Your task to perform on an android device: open app "DuckDuckGo Privacy Browser" (install if not already installed) and enter user name: "cleaving@outlook.com" and password: "freighters" Image 0: 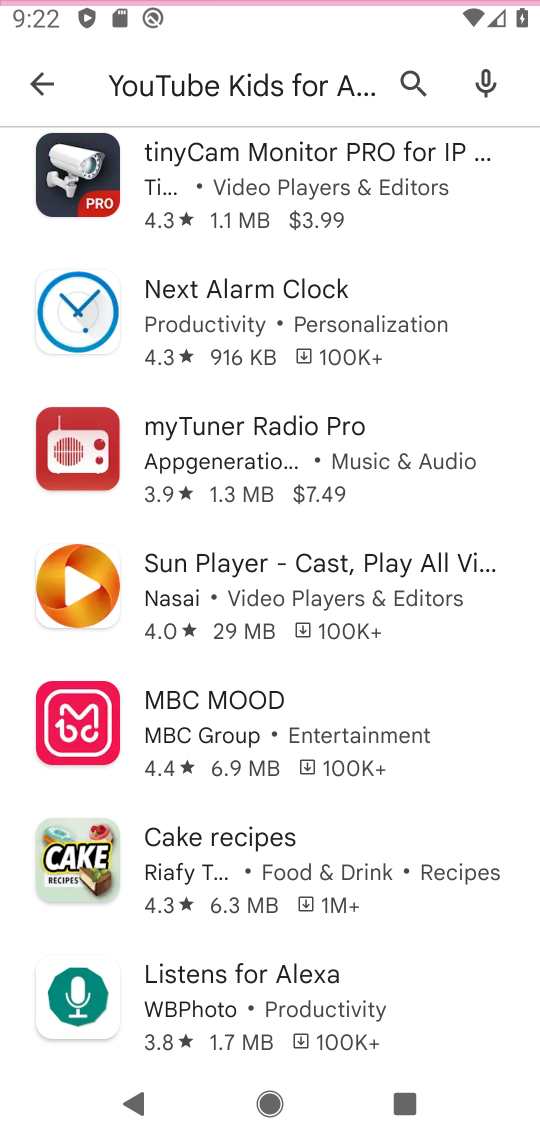
Step 0: press home button
Your task to perform on an android device: open app "DuckDuckGo Privacy Browser" (install if not already installed) and enter user name: "cleaving@outlook.com" and password: "freighters" Image 1: 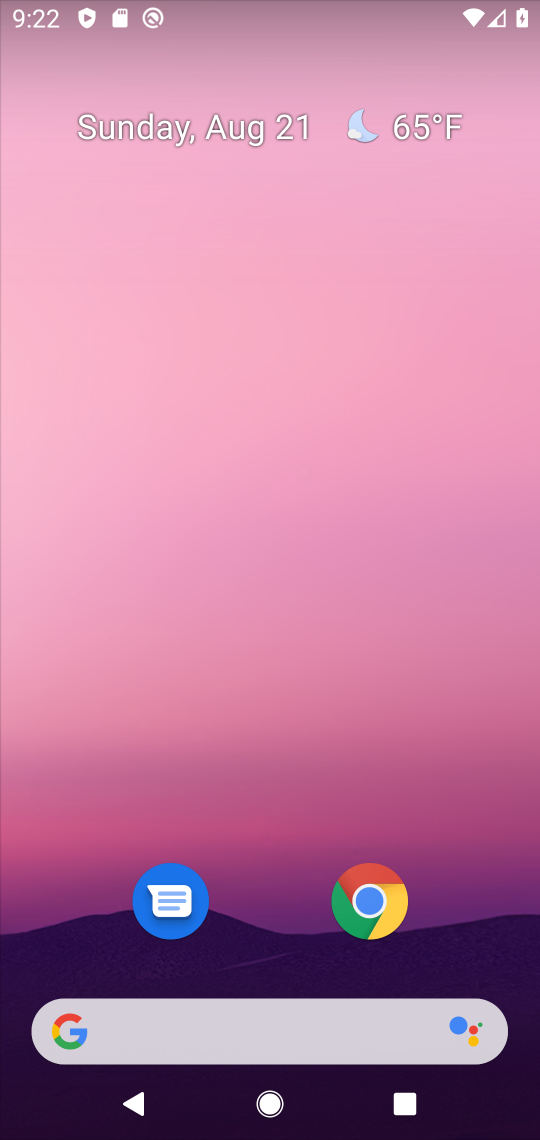
Step 1: drag from (454, 926) to (495, 106)
Your task to perform on an android device: open app "DuckDuckGo Privacy Browser" (install if not already installed) and enter user name: "cleaving@outlook.com" and password: "freighters" Image 2: 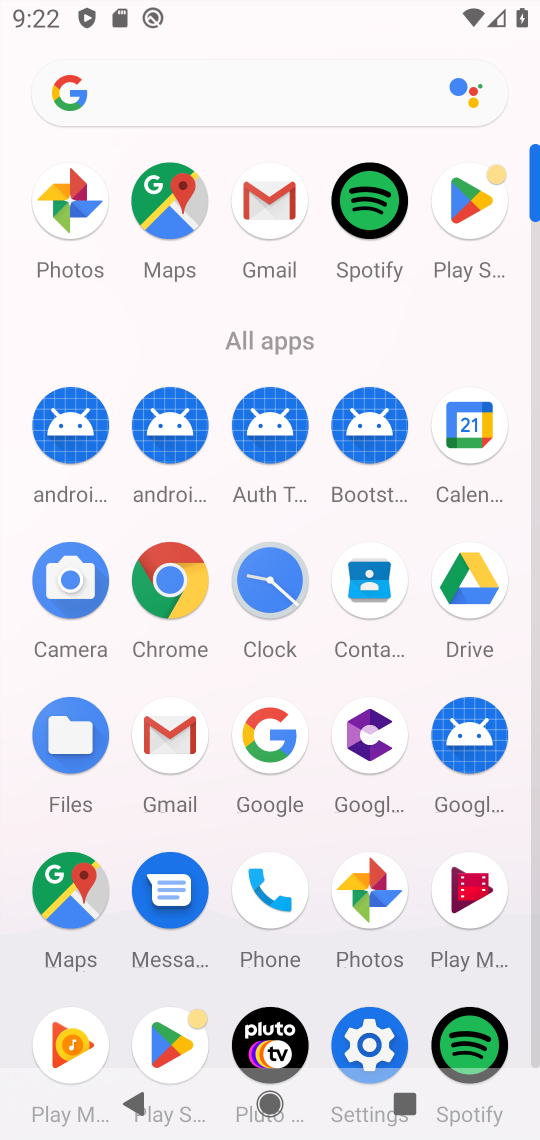
Step 2: click (478, 192)
Your task to perform on an android device: open app "DuckDuckGo Privacy Browser" (install if not already installed) and enter user name: "cleaving@outlook.com" and password: "freighters" Image 3: 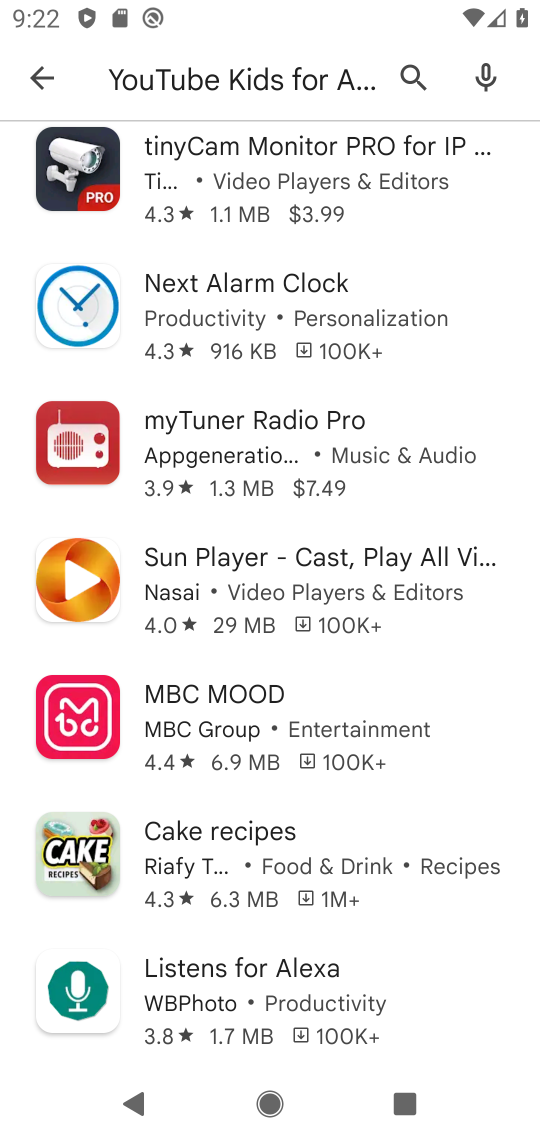
Step 3: press back button
Your task to perform on an android device: open app "DuckDuckGo Privacy Browser" (install if not already installed) and enter user name: "cleaving@outlook.com" and password: "freighters" Image 4: 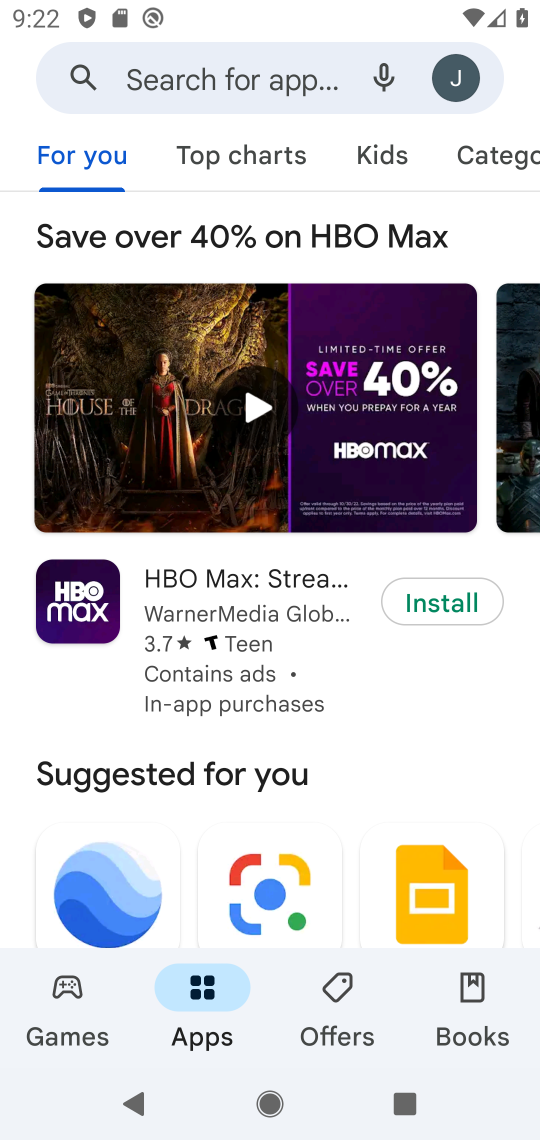
Step 4: click (197, 95)
Your task to perform on an android device: open app "DuckDuckGo Privacy Browser" (install if not already installed) and enter user name: "cleaving@outlook.com" and password: "freighters" Image 5: 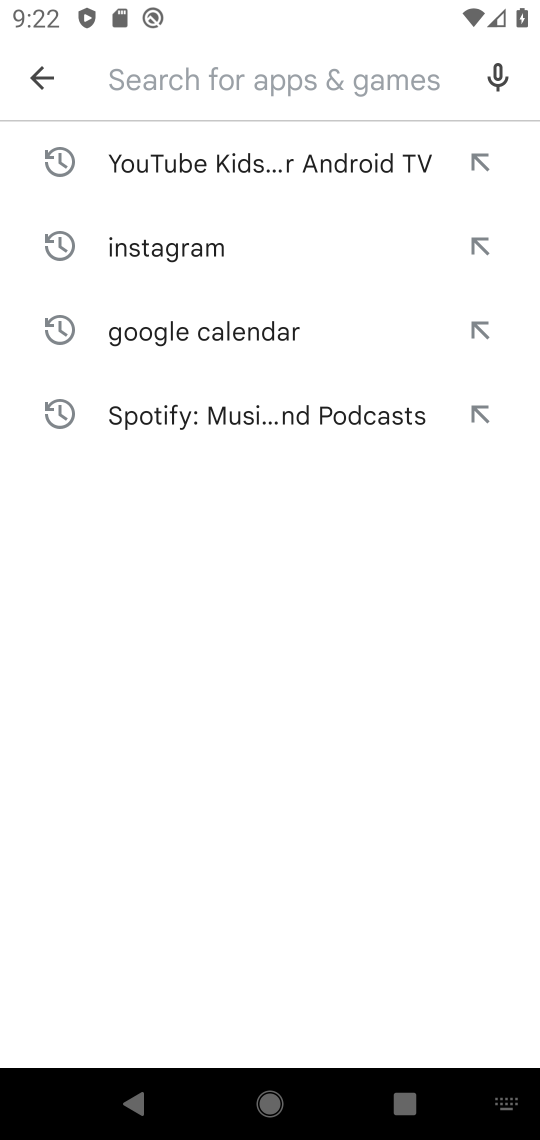
Step 5: type "DuckDuckGo Privacy Browser"
Your task to perform on an android device: open app "DuckDuckGo Privacy Browser" (install if not already installed) and enter user name: "cleaving@outlook.com" and password: "freighters" Image 6: 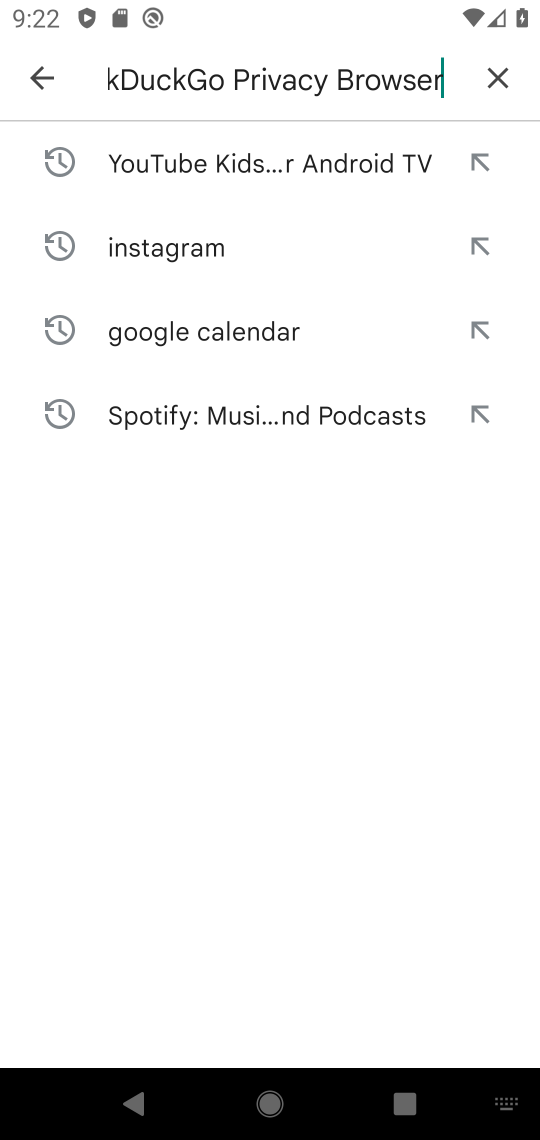
Step 6: press enter
Your task to perform on an android device: open app "DuckDuckGo Privacy Browser" (install if not already installed) and enter user name: "cleaving@outlook.com" and password: "freighters" Image 7: 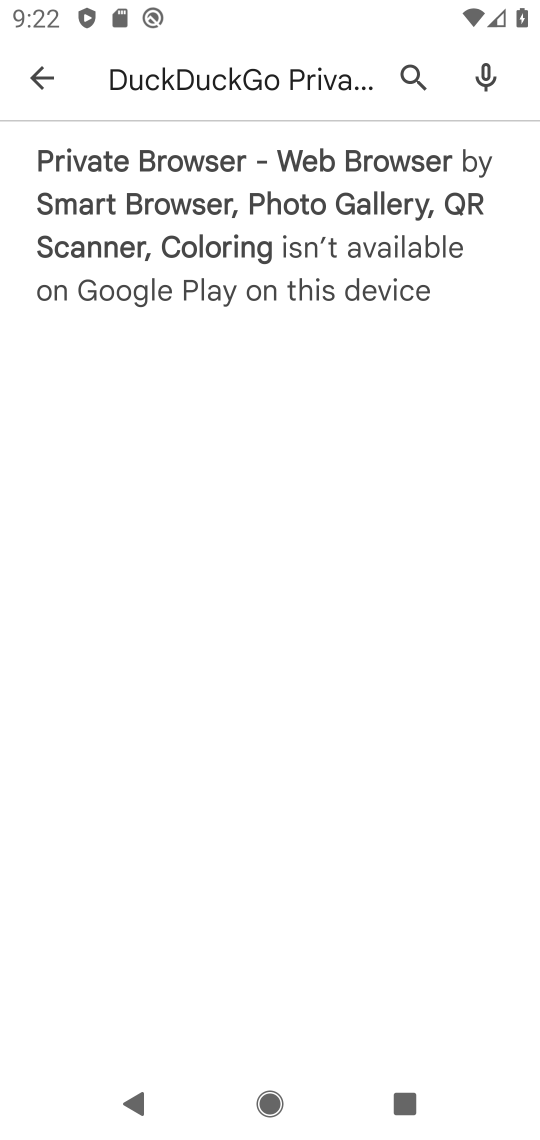
Step 7: click (305, 194)
Your task to perform on an android device: open app "DuckDuckGo Privacy Browser" (install if not already installed) and enter user name: "cleaving@outlook.com" and password: "freighters" Image 8: 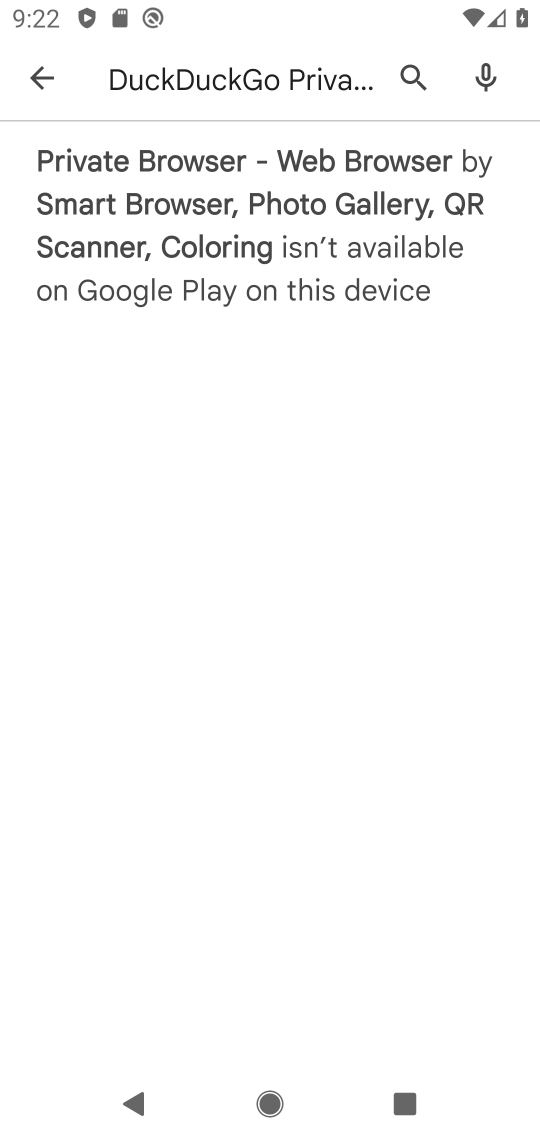
Step 8: click (129, 198)
Your task to perform on an android device: open app "DuckDuckGo Privacy Browser" (install if not already installed) and enter user name: "cleaving@outlook.com" and password: "freighters" Image 9: 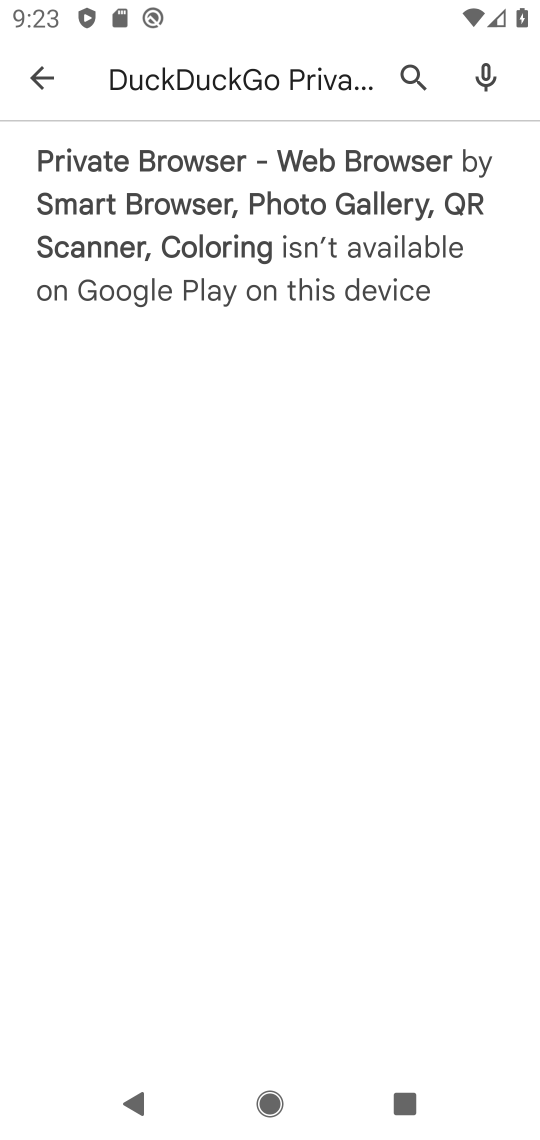
Step 9: task complete